Your task to perform on an android device: Search for razer thresher on amazon.com, select the first entry, and add it to the cart. Image 0: 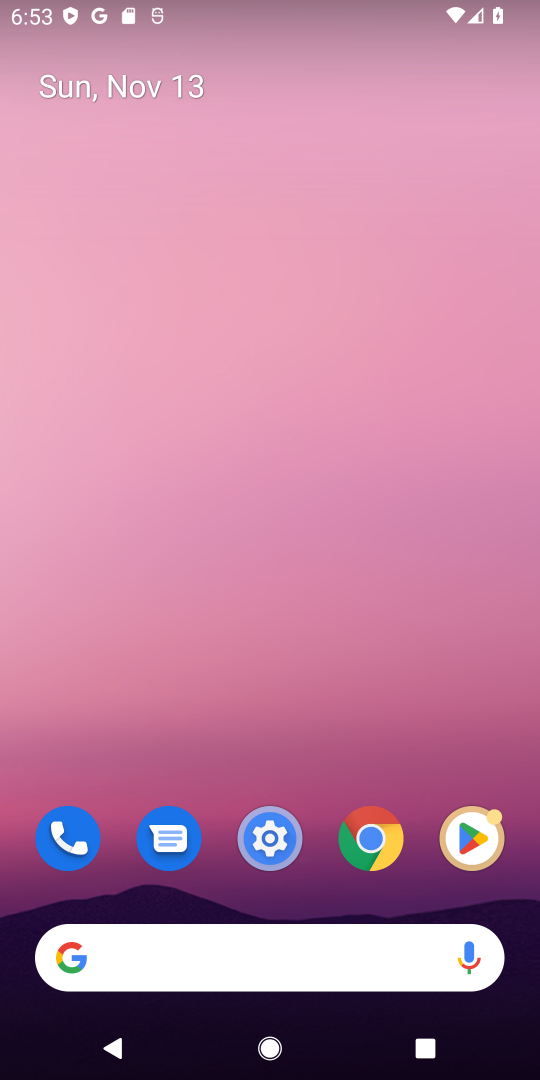
Step 0: click (366, 833)
Your task to perform on an android device: Search for razer thresher on amazon.com, select the first entry, and add it to the cart. Image 1: 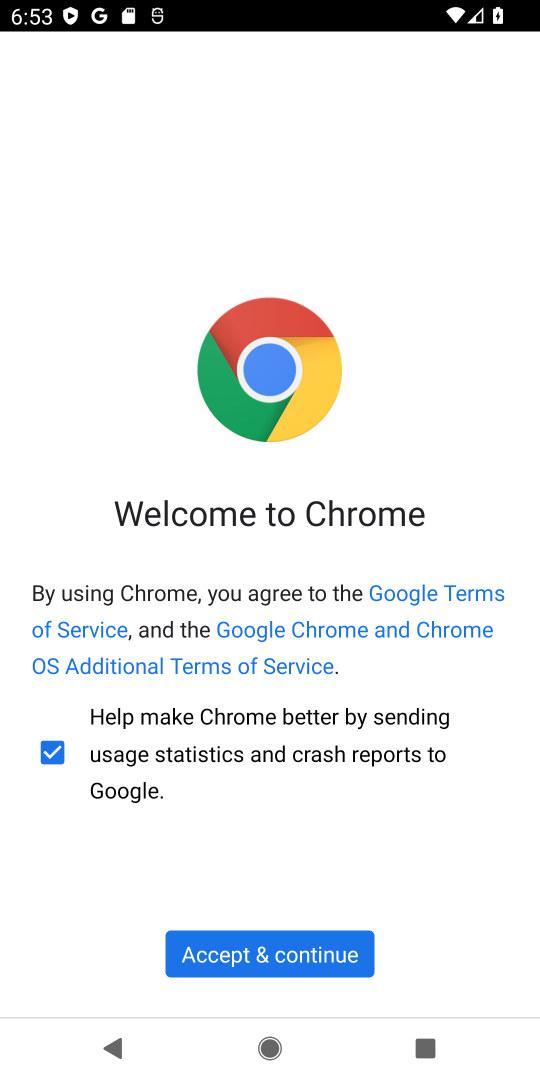
Step 1: click (316, 960)
Your task to perform on an android device: Search for razer thresher on amazon.com, select the first entry, and add it to the cart. Image 2: 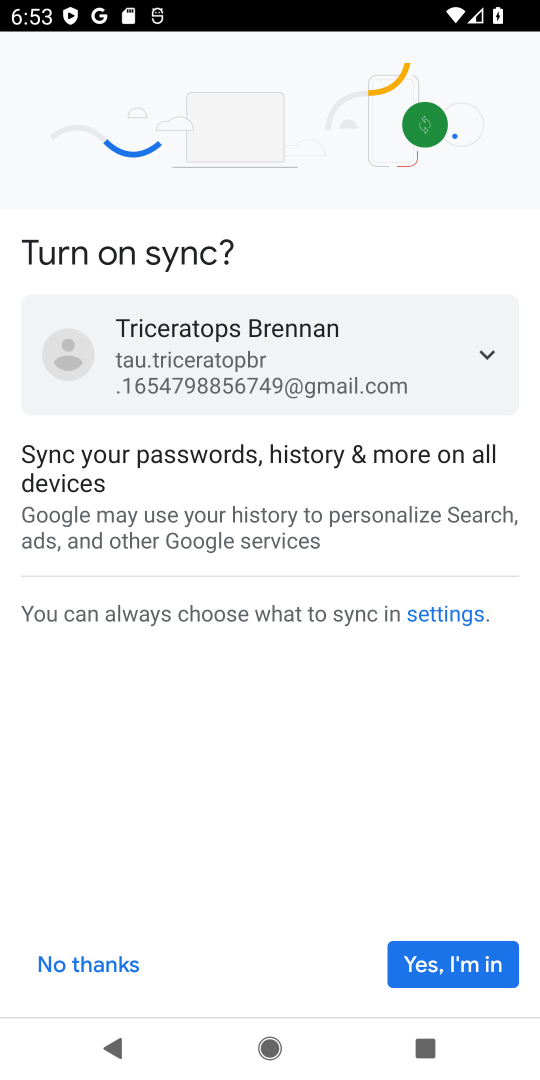
Step 2: click (432, 954)
Your task to perform on an android device: Search for razer thresher on amazon.com, select the first entry, and add it to the cart. Image 3: 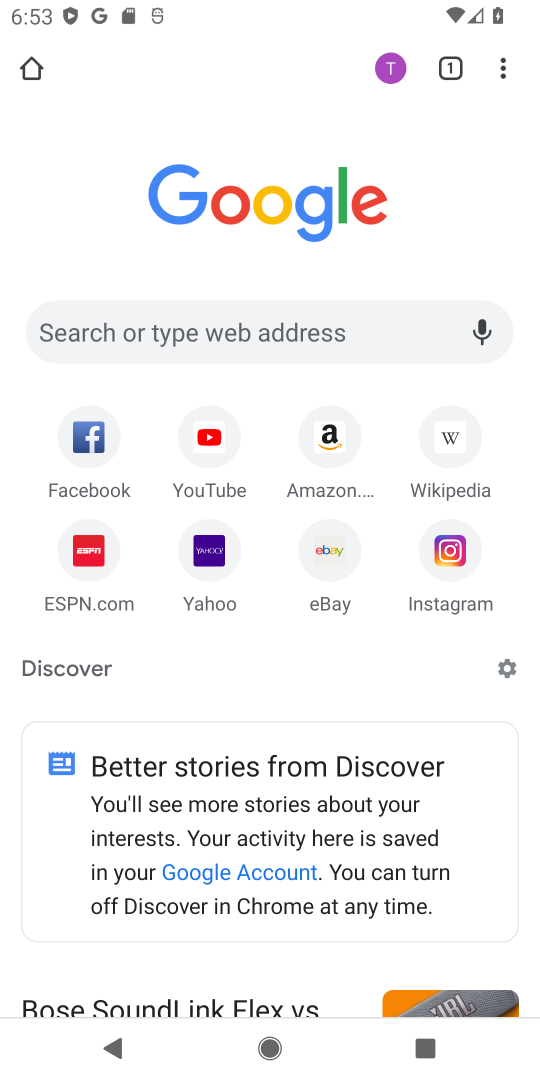
Step 3: click (335, 459)
Your task to perform on an android device: Search for razer thresher on amazon.com, select the first entry, and add it to the cart. Image 4: 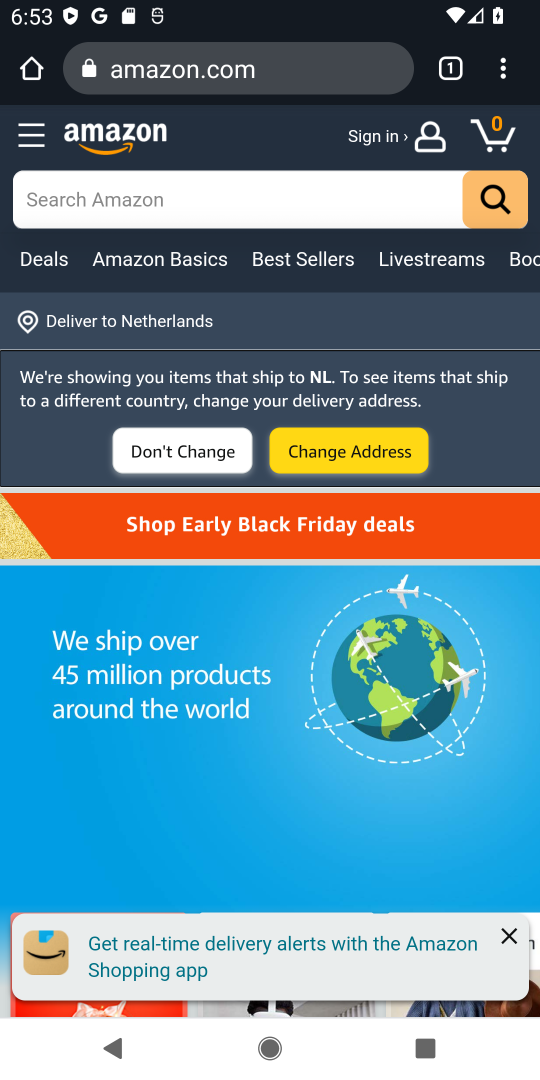
Step 4: click (114, 197)
Your task to perform on an android device: Search for razer thresher on amazon.com, select the first entry, and add it to the cart. Image 5: 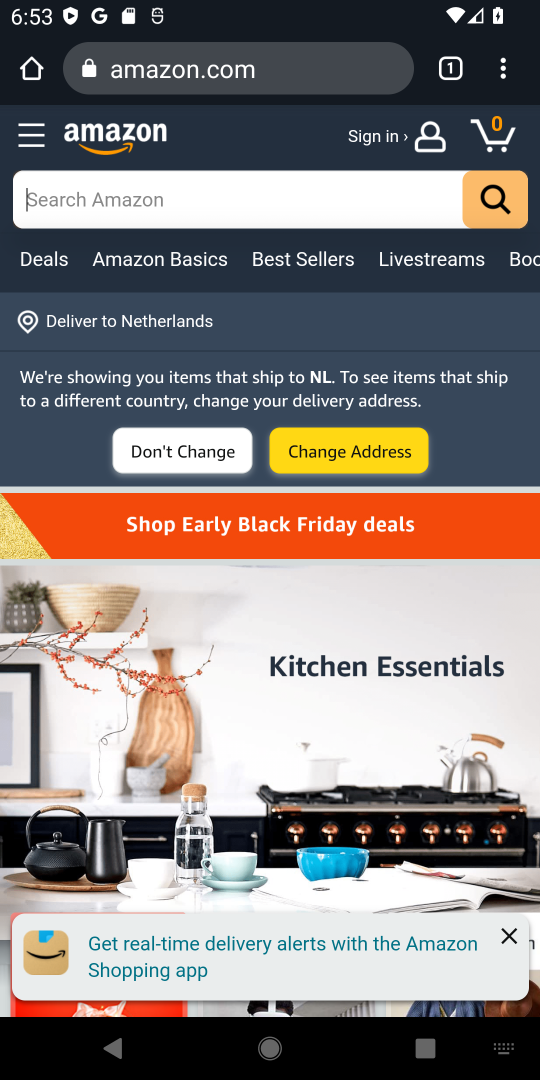
Step 5: type "razer thresher"
Your task to perform on an android device: Search for razer thresher on amazon.com, select the first entry, and add it to the cart. Image 6: 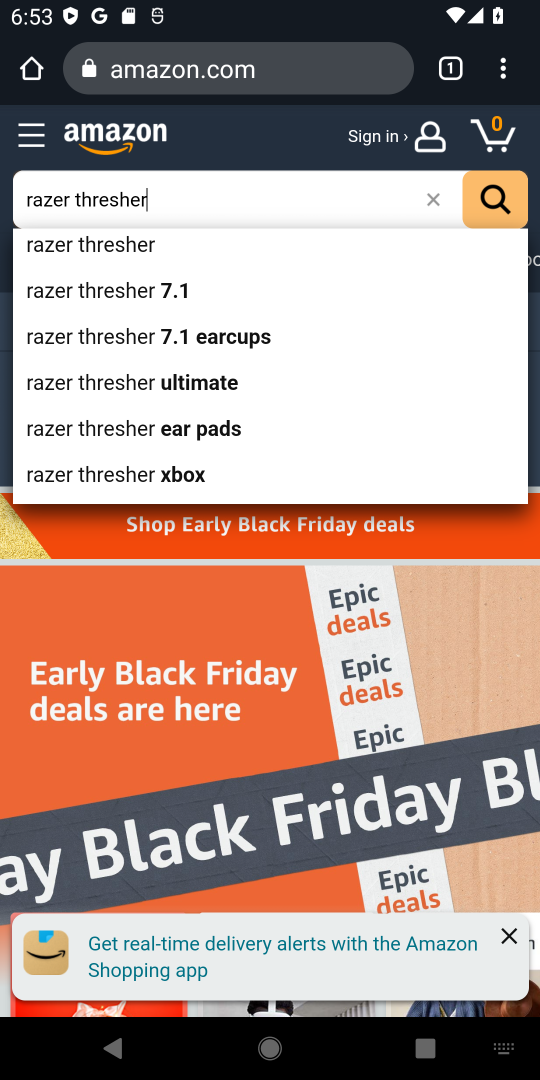
Step 6: click (87, 263)
Your task to perform on an android device: Search for razer thresher on amazon.com, select the first entry, and add it to the cart. Image 7: 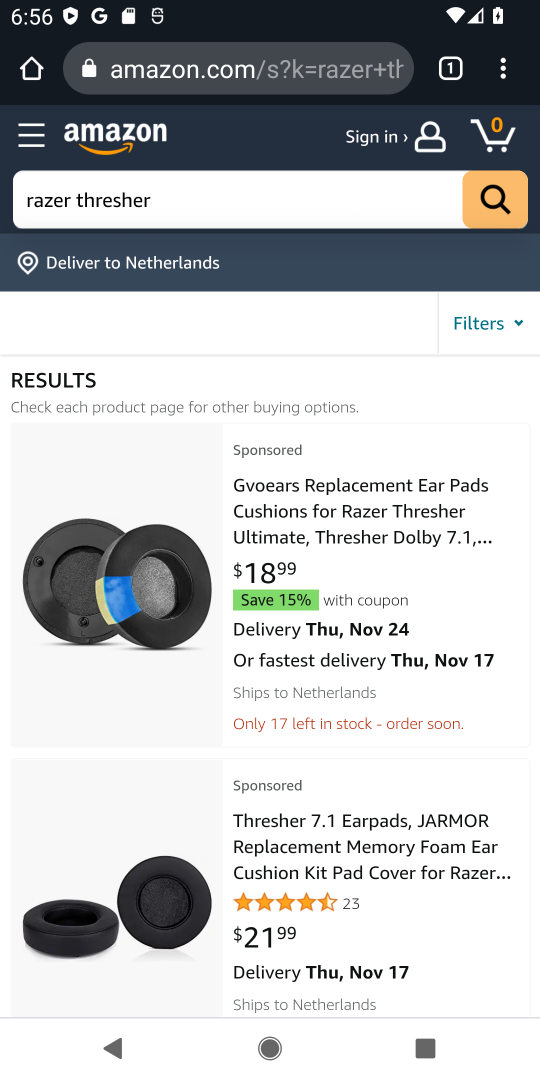
Step 7: drag from (227, 678) to (234, 617)
Your task to perform on an android device: Search for razer thresher on amazon.com, select the first entry, and add it to the cart. Image 8: 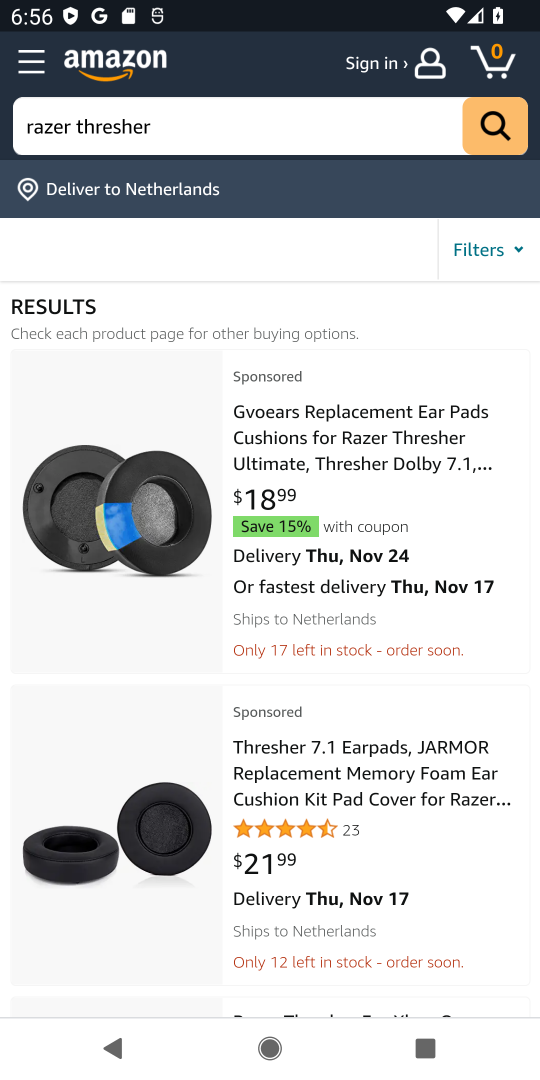
Step 8: click (169, 783)
Your task to perform on an android device: Search for razer thresher on amazon.com, select the first entry, and add it to the cart. Image 9: 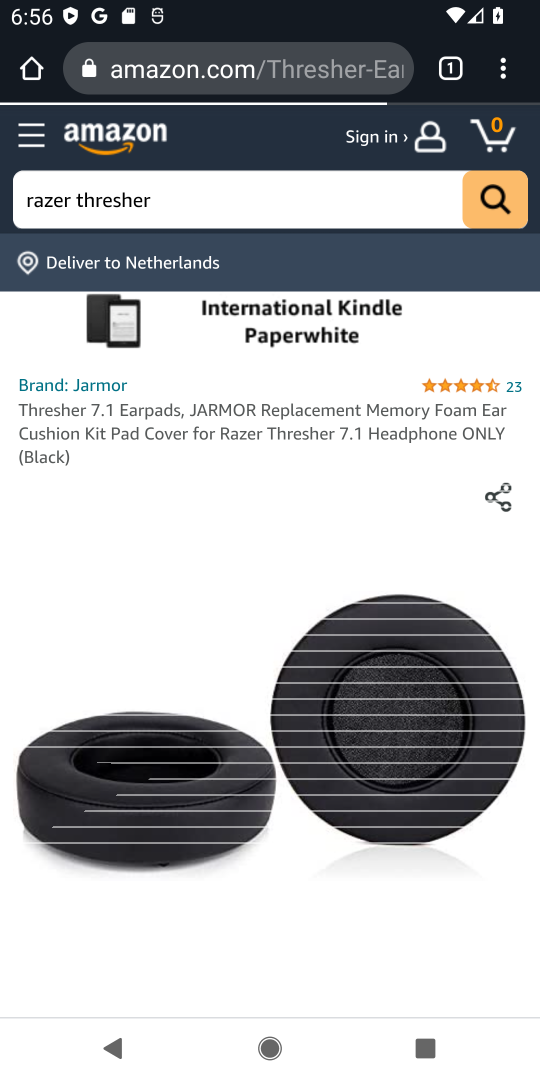
Step 9: drag from (195, 785) to (266, 528)
Your task to perform on an android device: Search for razer thresher on amazon.com, select the first entry, and add it to the cart. Image 10: 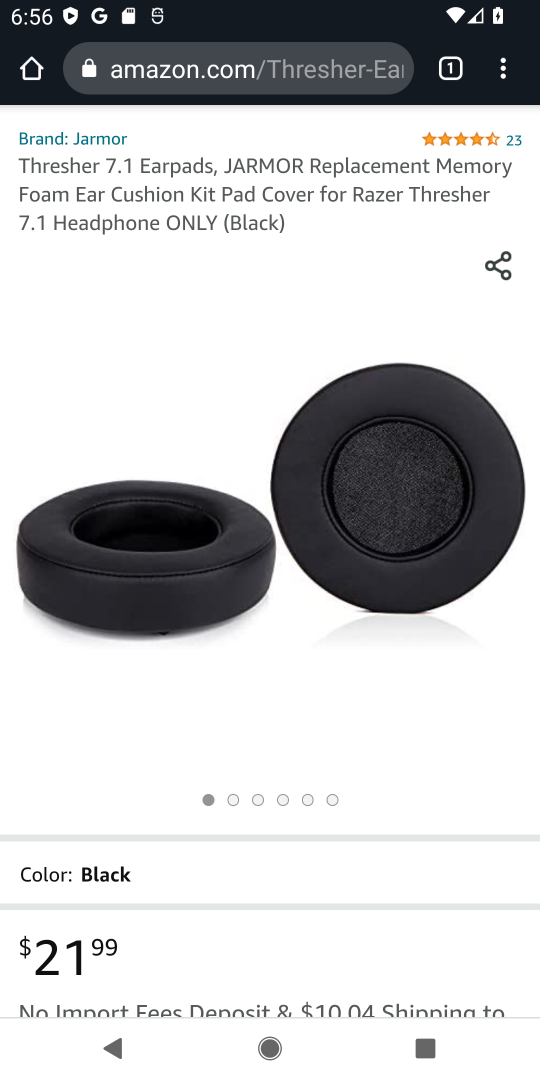
Step 10: drag from (347, 786) to (334, 458)
Your task to perform on an android device: Search for razer thresher on amazon.com, select the first entry, and add it to the cart. Image 11: 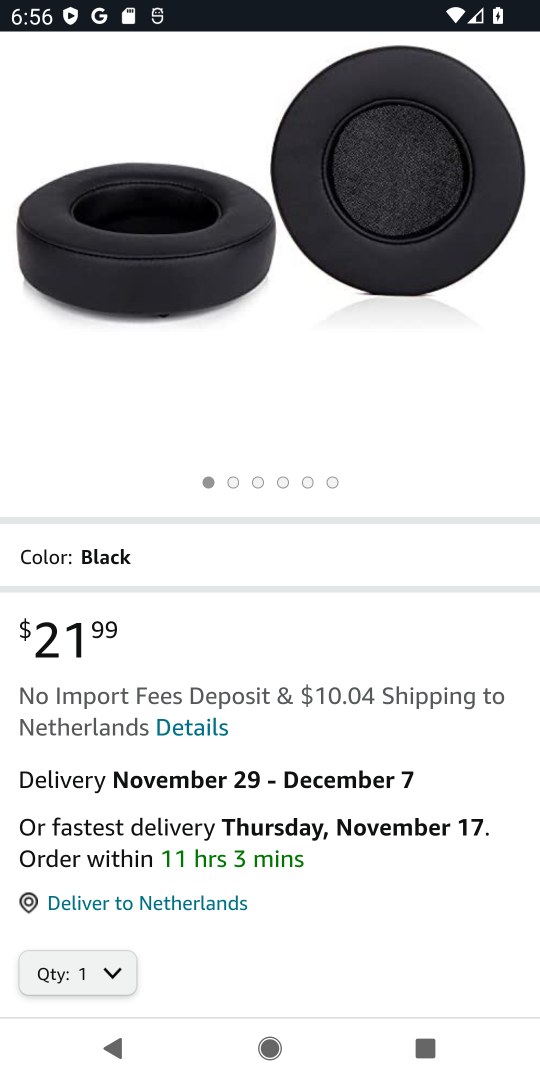
Step 11: drag from (215, 846) to (262, 356)
Your task to perform on an android device: Search for razer thresher on amazon.com, select the first entry, and add it to the cart. Image 12: 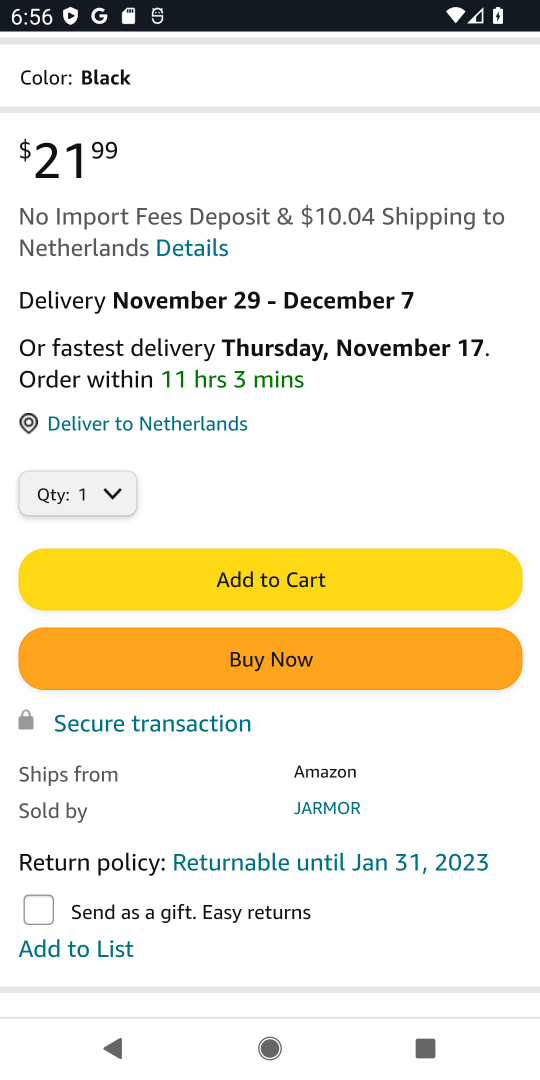
Step 12: click (290, 568)
Your task to perform on an android device: Search for razer thresher on amazon.com, select the first entry, and add it to the cart. Image 13: 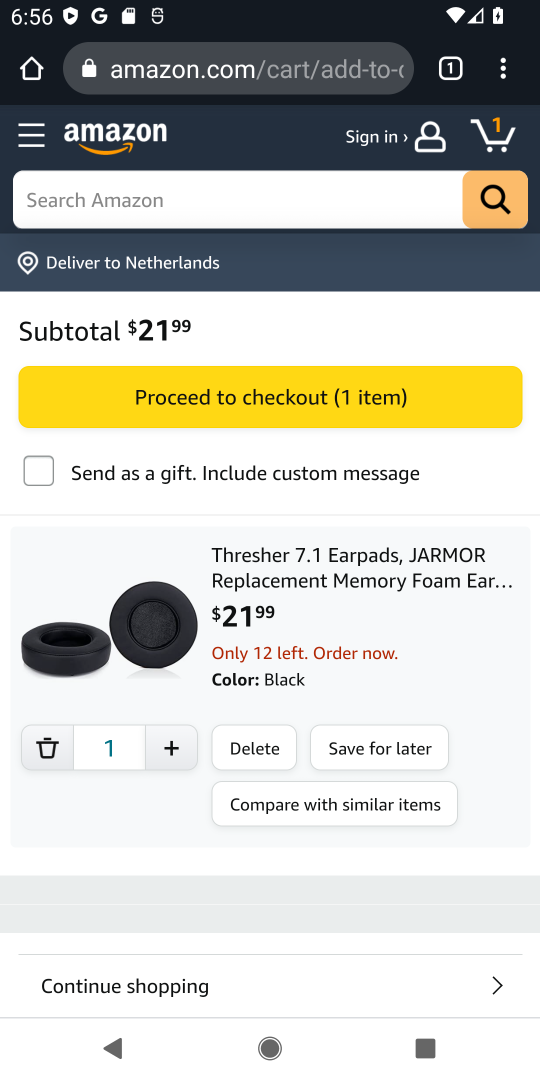
Step 13: task complete